Your task to perform on an android device: Open Chrome and go to the settings page Image 0: 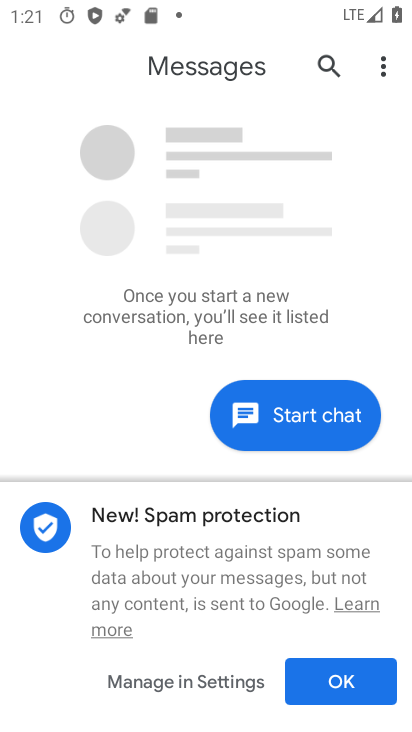
Step 0: press home button
Your task to perform on an android device: Open Chrome and go to the settings page Image 1: 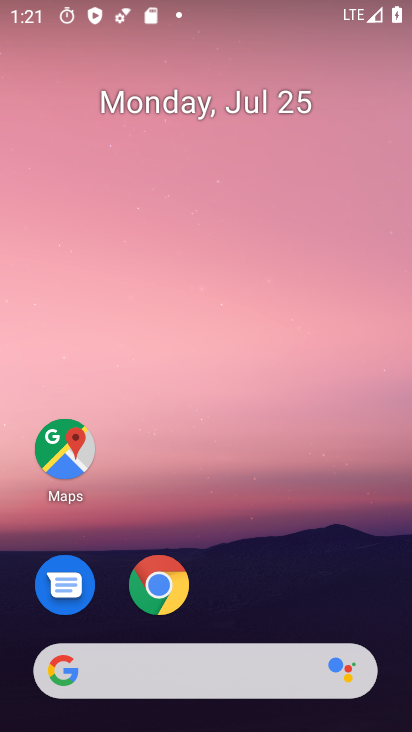
Step 1: click (163, 584)
Your task to perform on an android device: Open Chrome and go to the settings page Image 2: 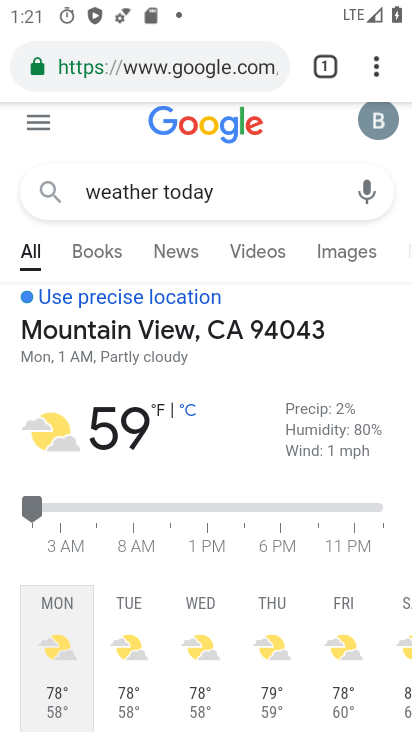
Step 2: task complete